Your task to perform on an android device: turn pop-ups on in chrome Image 0: 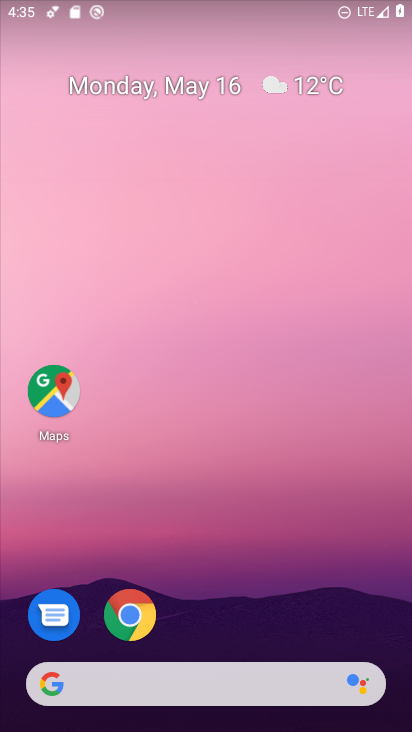
Step 0: click (134, 611)
Your task to perform on an android device: turn pop-ups on in chrome Image 1: 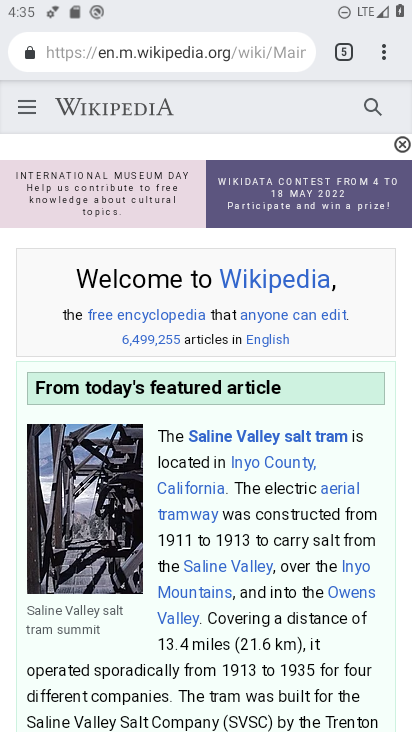
Step 1: click (384, 53)
Your task to perform on an android device: turn pop-ups on in chrome Image 2: 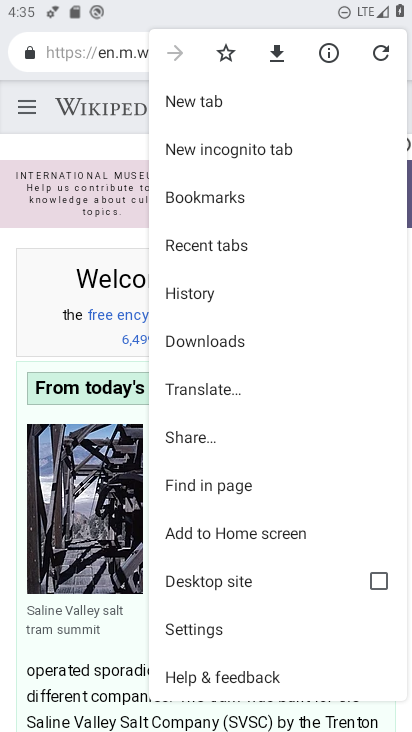
Step 2: click (199, 629)
Your task to perform on an android device: turn pop-ups on in chrome Image 3: 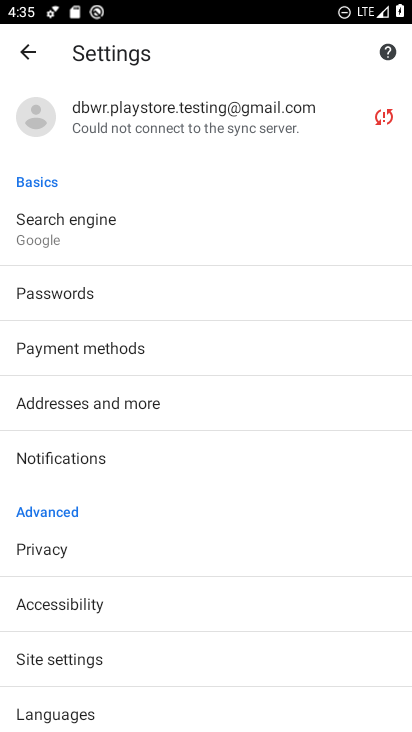
Step 3: click (98, 660)
Your task to perform on an android device: turn pop-ups on in chrome Image 4: 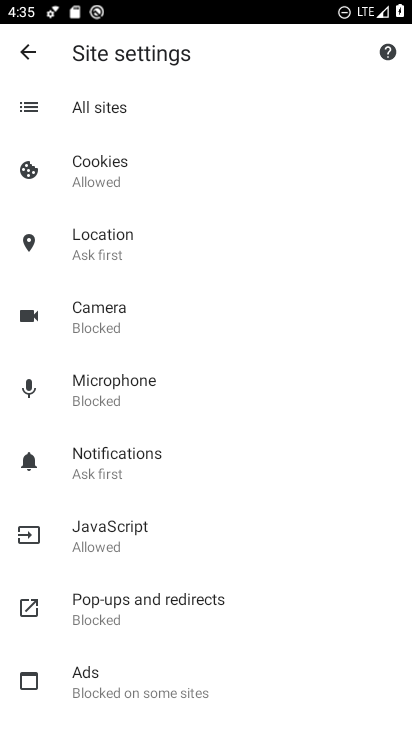
Step 4: drag from (143, 649) to (152, 483)
Your task to perform on an android device: turn pop-ups on in chrome Image 5: 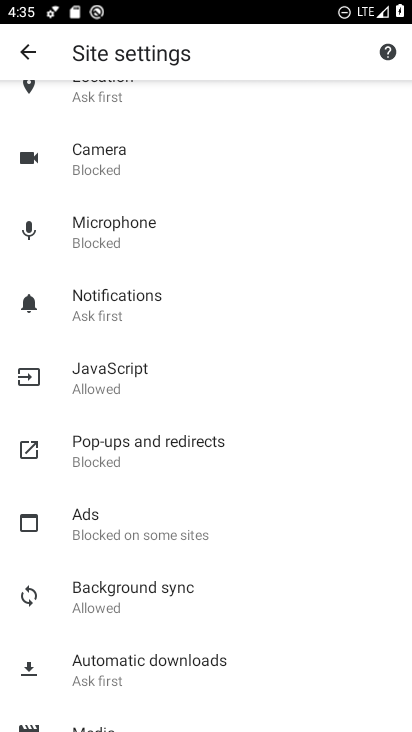
Step 5: click (128, 443)
Your task to perform on an android device: turn pop-ups on in chrome Image 6: 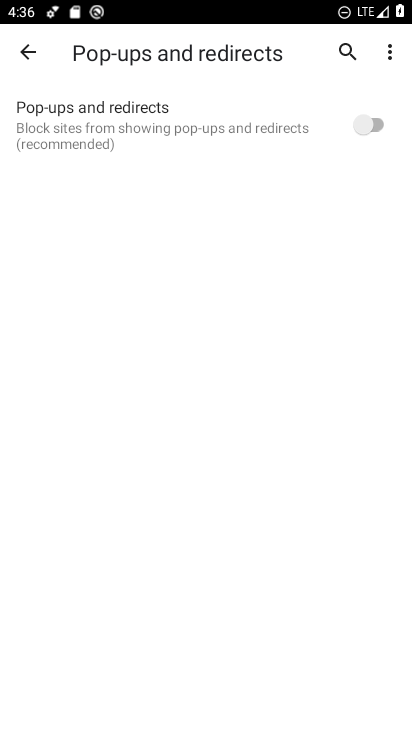
Step 6: click (379, 118)
Your task to perform on an android device: turn pop-ups on in chrome Image 7: 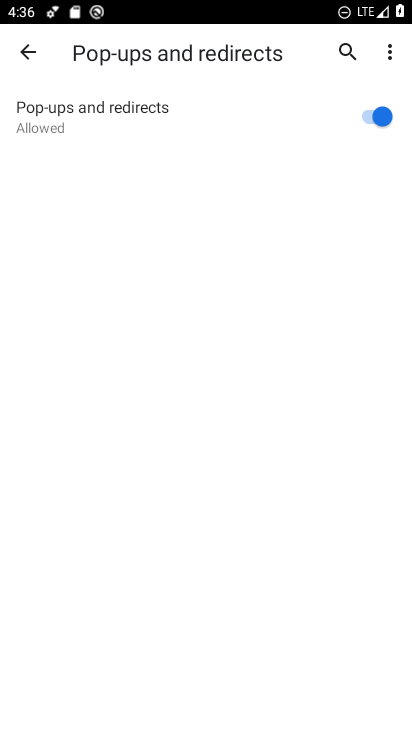
Step 7: task complete